Your task to perform on an android device: Show me productivity apps on the Play Store Image 0: 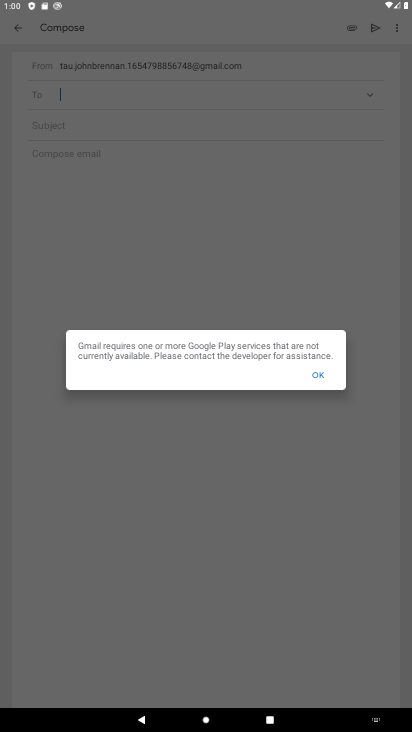
Step 0: press home button
Your task to perform on an android device: Show me productivity apps on the Play Store Image 1: 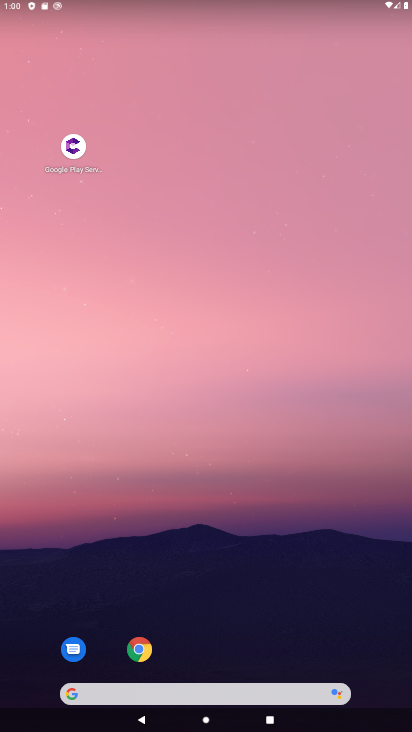
Step 1: drag from (182, 683) to (180, 73)
Your task to perform on an android device: Show me productivity apps on the Play Store Image 2: 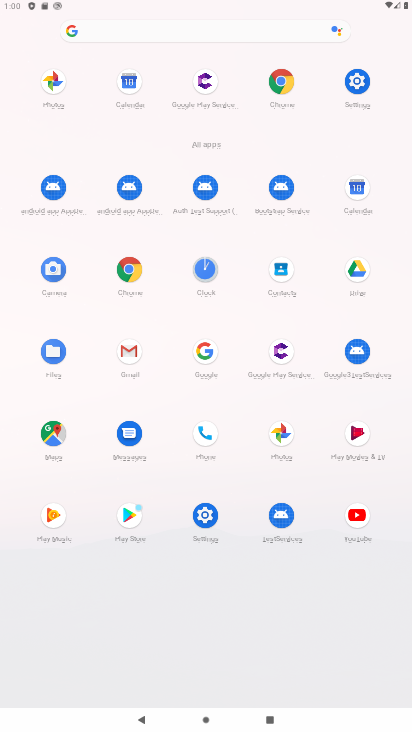
Step 2: click (125, 521)
Your task to perform on an android device: Show me productivity apps on the Play Store Image 3: 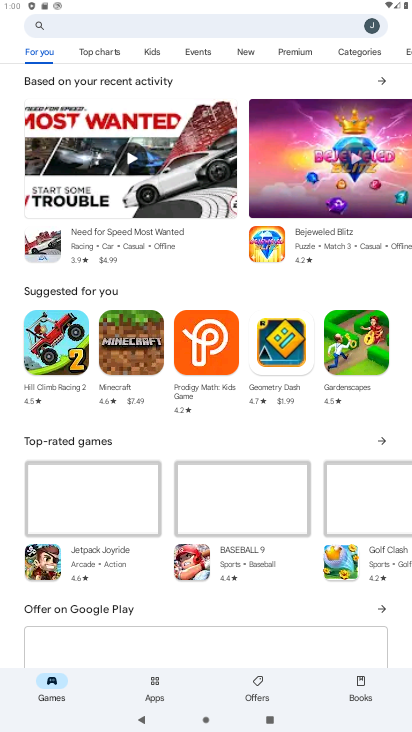
Step 3: click (148, 681)
Your task to perform on an android device: Show me productivity apps on the Play Store Image 4: 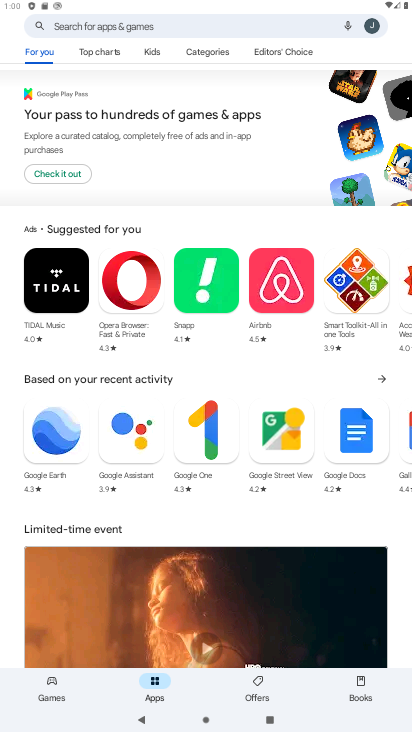
Step 4: click (220, 50)
Your task to perform on an android device: Show me productivity apps on the Play Store Image 5: 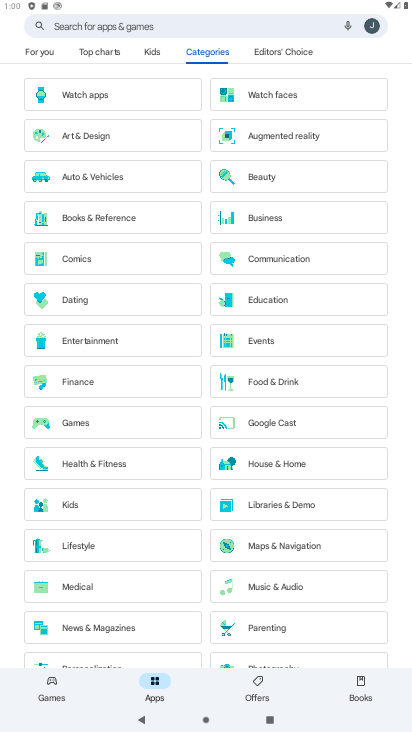
Step 5: drag from (157, 541) to (136, 166)
Your task to perform on an android device: Show me productivity apps on the Play Store Image 6: 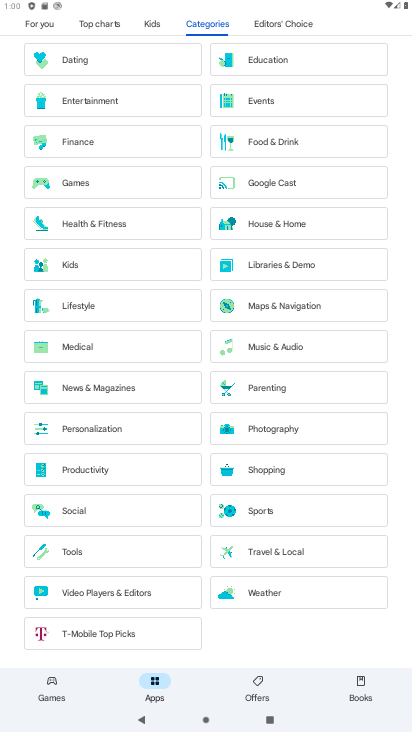
Step 6: click (116, 478)
Your task to perform on an android device: Show me productivity apps on the Play Store Image 7: 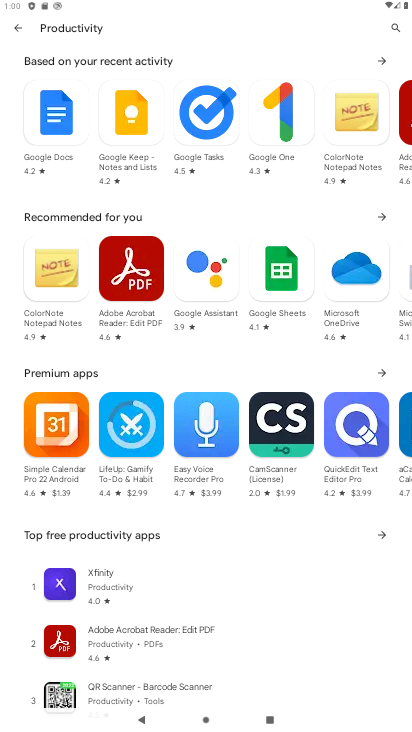
Step 7: task complete